Your task to perform on an android device: open device folders in google photos Image 0: 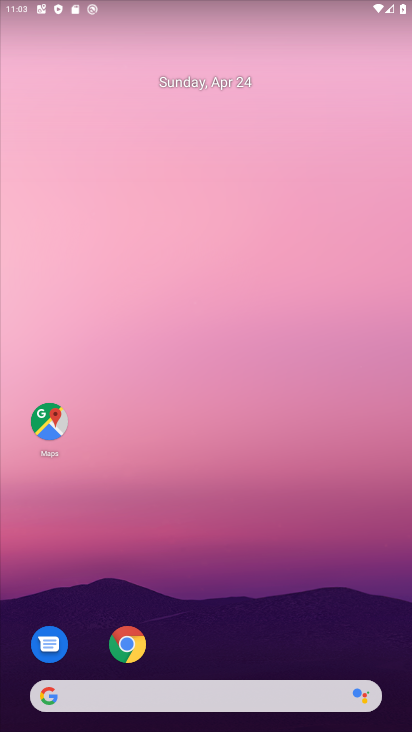
Step 0: drag from (382, 595) to (397, 62)
Your task to perform on an android device: open device folders in google photos Image 1: 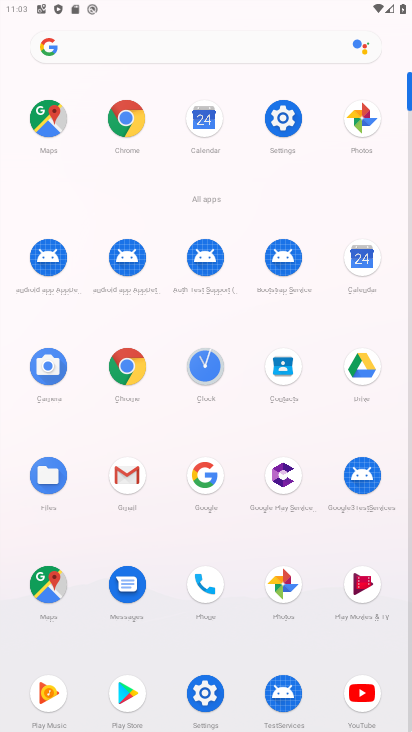
Step 1: click (364, 120)
Your task to perform on an android device: open device folders in google photos Image 2: 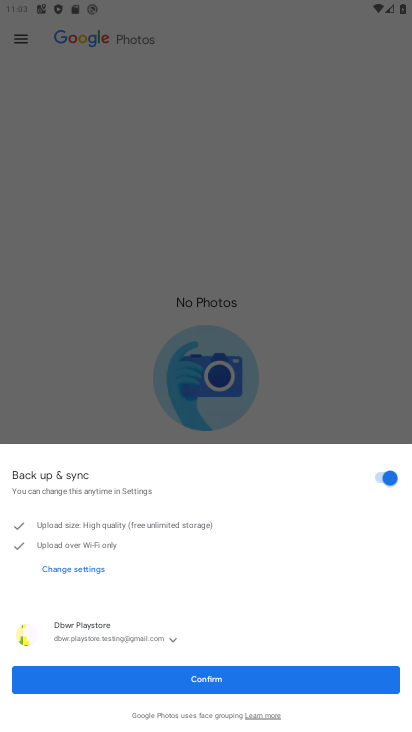
Step 2: click (202, 679)
Your task to perform on an android device: open device folders in google photos Image 3: 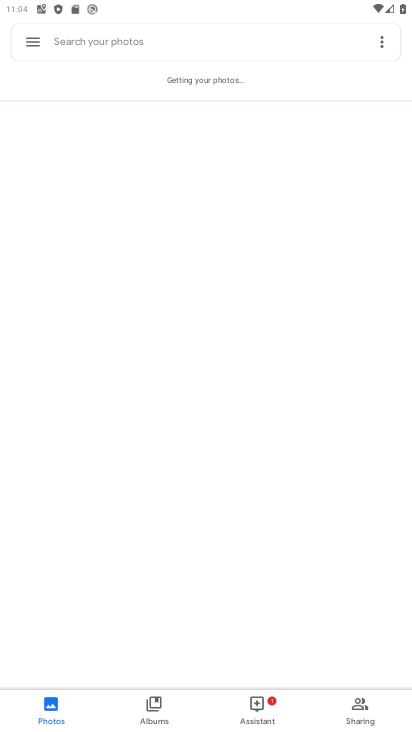
Step 3: click (30, 43)
Your task to perform on an android device: open device folders in google photos Image 4: 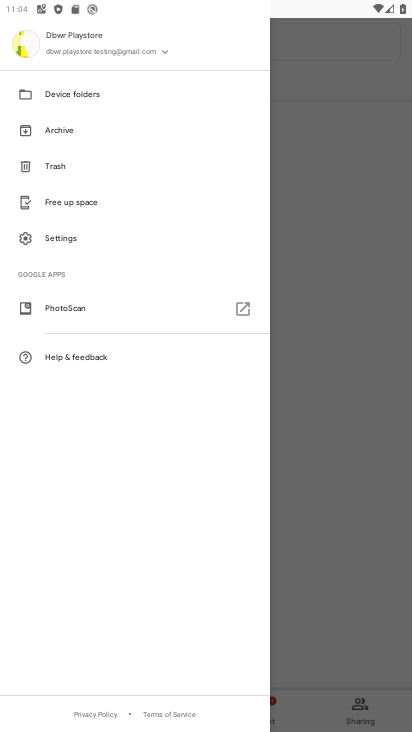
Step 4: click (71, 99)
Your task to perform on an android device: open device folders in google photos Image 5: 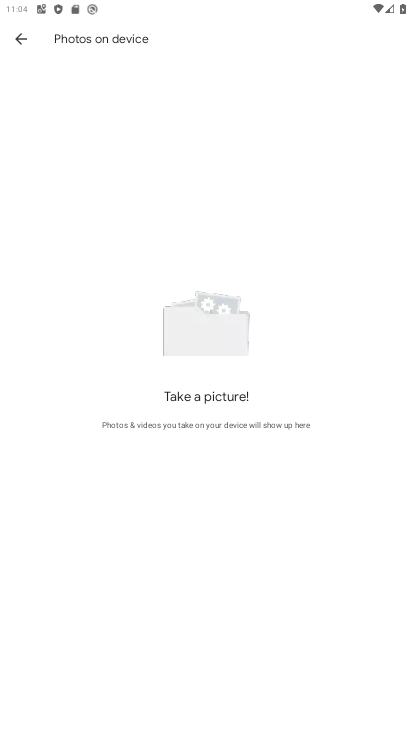
Step 5: task complete